Your task to perform on an android device: Open wifi settings Image 0: 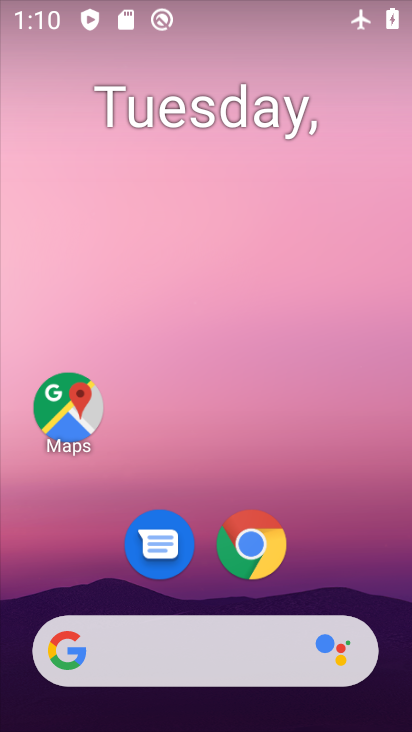
Step 0: drag from (391, 635) to (347, 101)
Your task to perform on an android device: Open wifi settings Image 1: 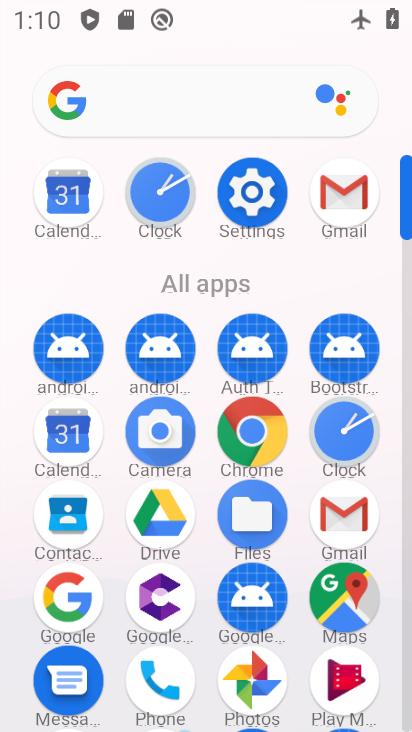
Step 1: click (407, 694)
Your task to perform on an android device: Open wifi settings Image 2: 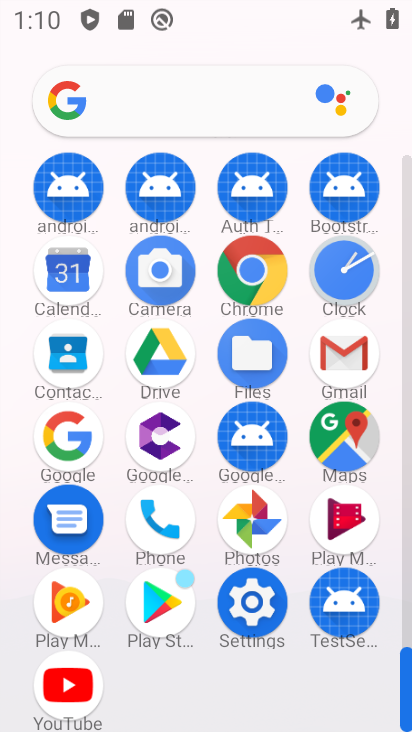
Step 2: click (254, 601)
Your task to perform on an android device: Open wifi settings Image 3: 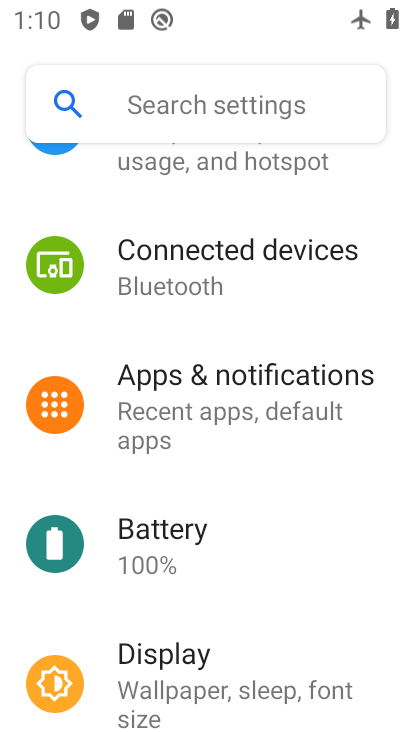
Step 3: drag from (372, 229) to (356, 503)
Your task to perform on an android device: Open wifi settings Image 4: 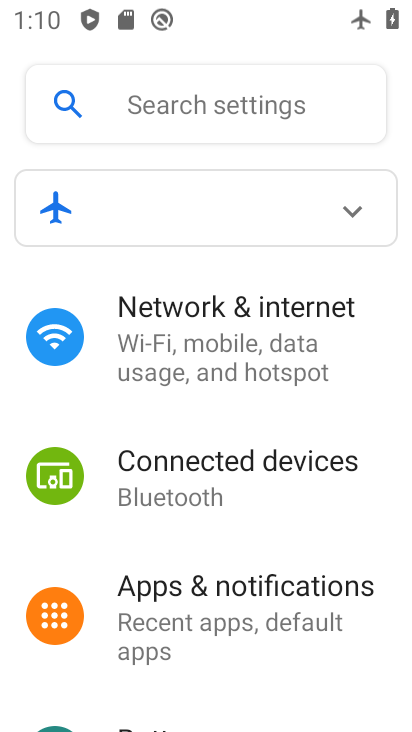
Step 4: click (169, 333)
Your task to perform on an android device: Open wifi settings Image 5: 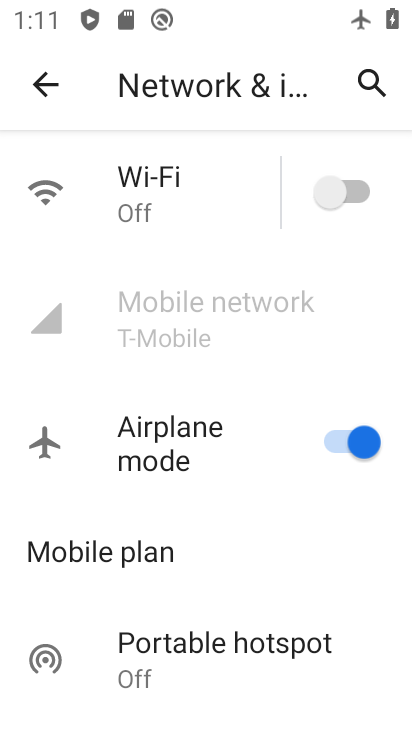
Step 5: click (124, 184)
Your task to perform on an android device: Open wifi settings Image 6: 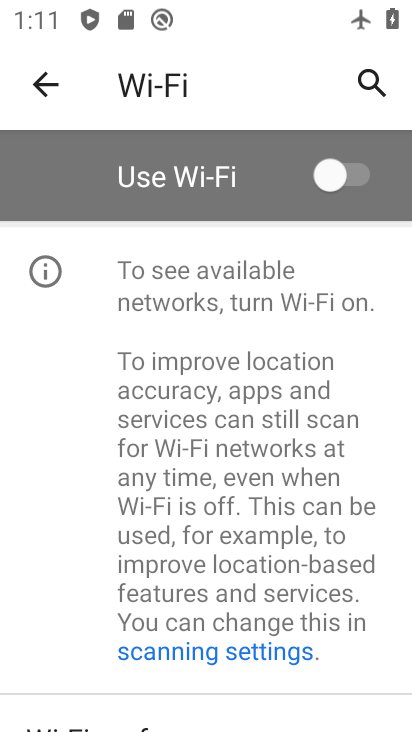
Step 6: task complete